Your task to perform on an android device: Open location settings Image 0: 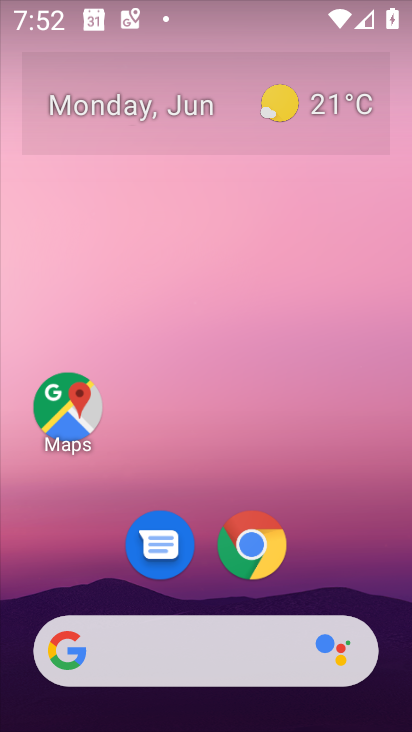
Step 0: drag from (351, 555) to (374, 9)
Your task to perform on an android device: Open location settings Image 1: 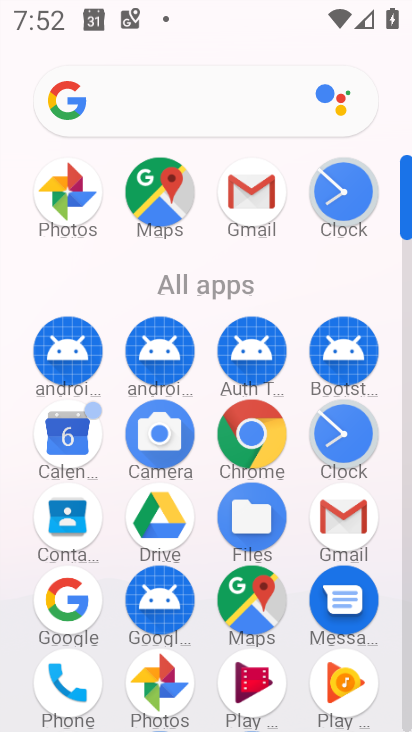
Step 1: drag from (197, 625) to (213, 127)
Your task to perform on an android device: Open location settings Image 2: 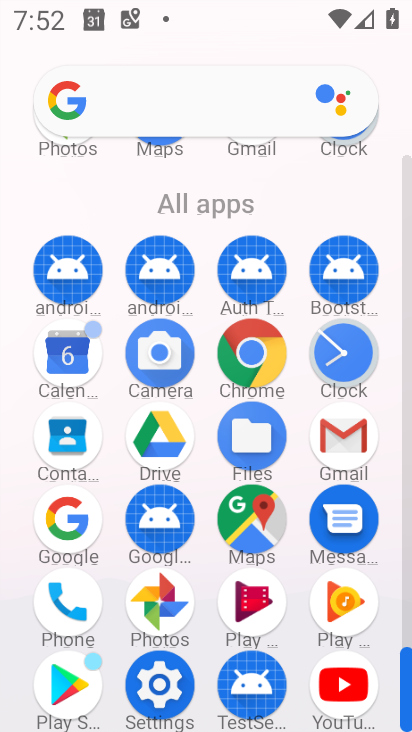
Step 2: click (150, 687)
Your task to perform on an android device: Open location settings Image 3: 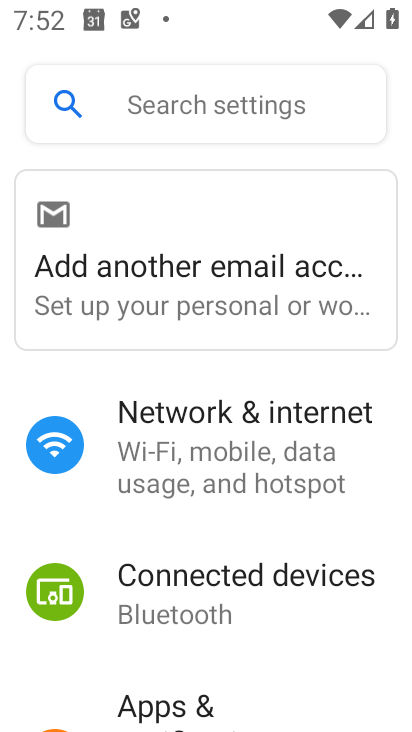
Step 3: drag from (273, 654) to (287, 150)
Your task to perform on an android device: Open location settings Image 4: 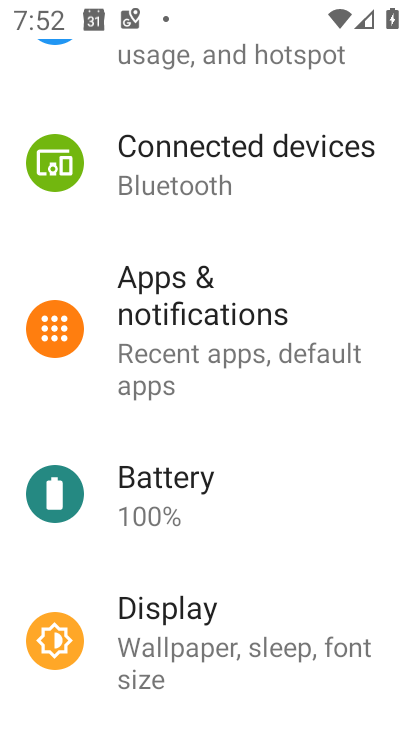
Step 4: drag from (222, 583) to (296, 172)
Your task to perform on an android device: Open location settings Image 5: 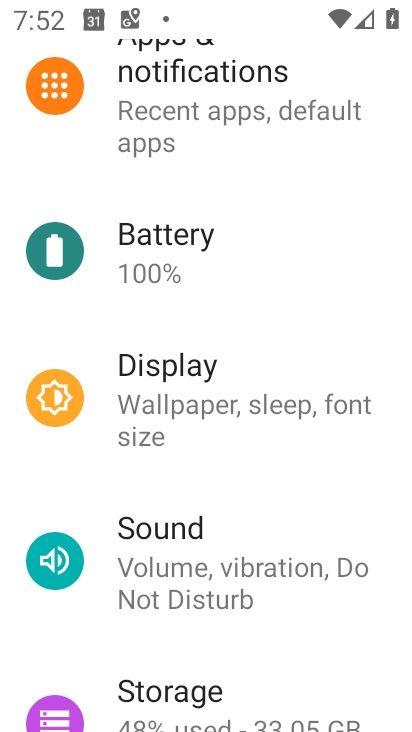
Step 5: click (296, 170)
Your task to perform on an android device: Open location settings Image 6: 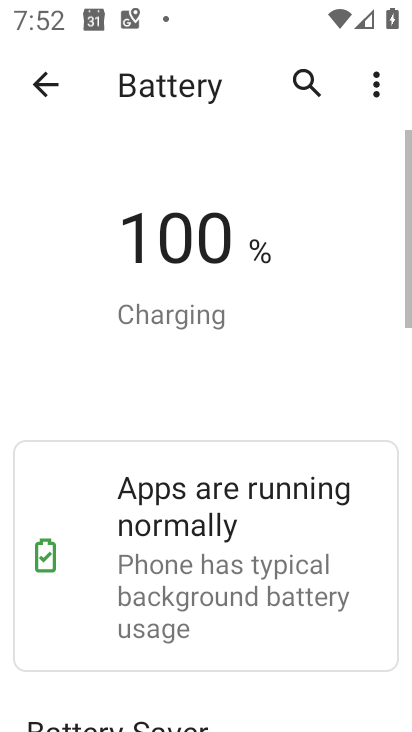
Step 6: click (59, 82)
Your task to perform on an android device: Open location settings Image 7: 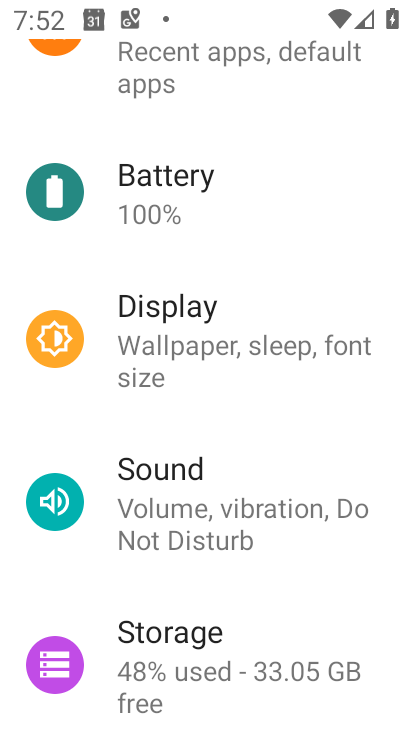
Step 7: drag from (236, 210) to (224, 673)
Your task to perform on an android device: Open location settings Image 8: 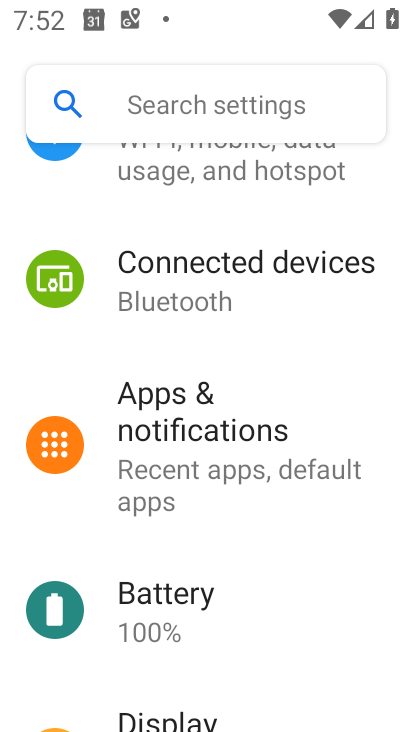
Step 8: drag from (268, 209) to (283, 77)
Your task to perform on an android device: Open location settings Image 9: 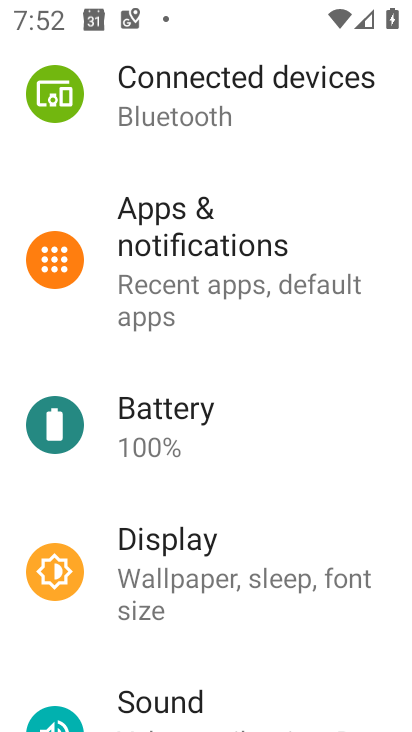
Step 9: drag from (337, 518) to (337, 196)
Your task to perform on an android device: Open location settings Image 10: 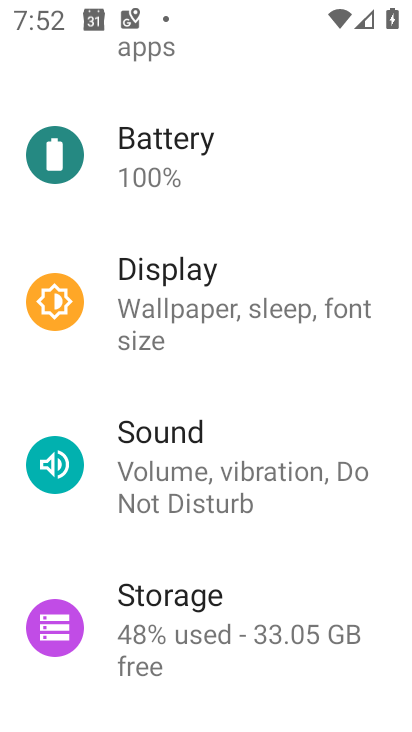
Step 10: drag from (299, 553) to (335, 110)
Your task to perform on an android device: Open location settings Image 11: 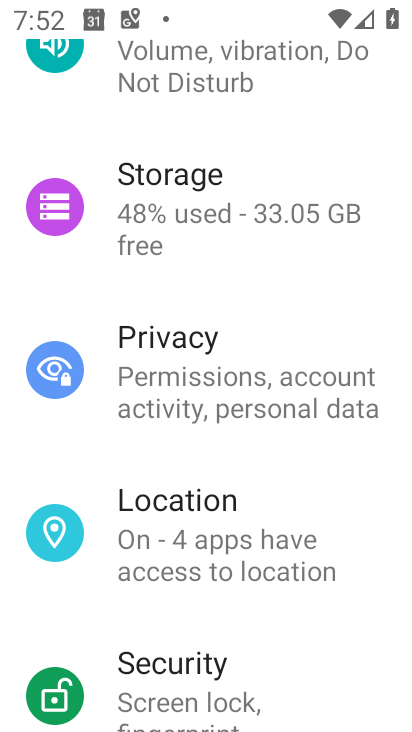
Step 11: click (218, 549)
Your task to perform on an android device: Open location settings Image 12: 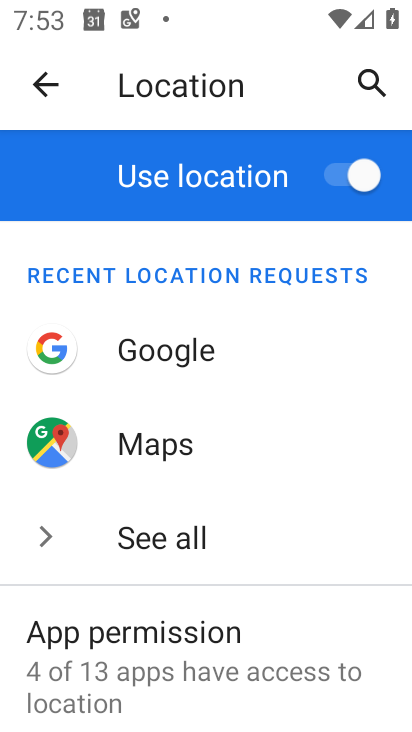
Step 12: task complete